Your task to perform on an android device: create a new album in the google photos Image 0: 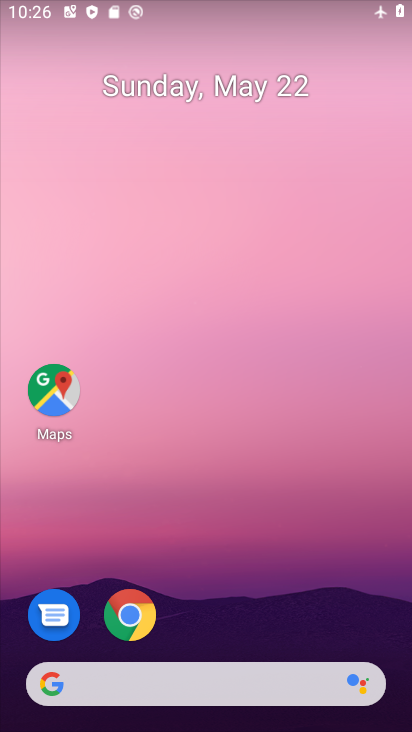
Step 0: drag from (268, 619) to (258, 114)
Your task to perform on an android device: create a new album in the google photos Image 1: 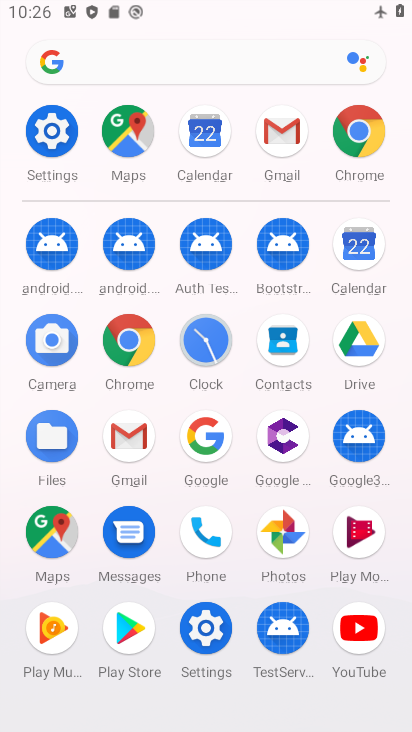
Step 1: click (289, 551)
Your task to perform on an android device: create a new album in the google photos Image 2: 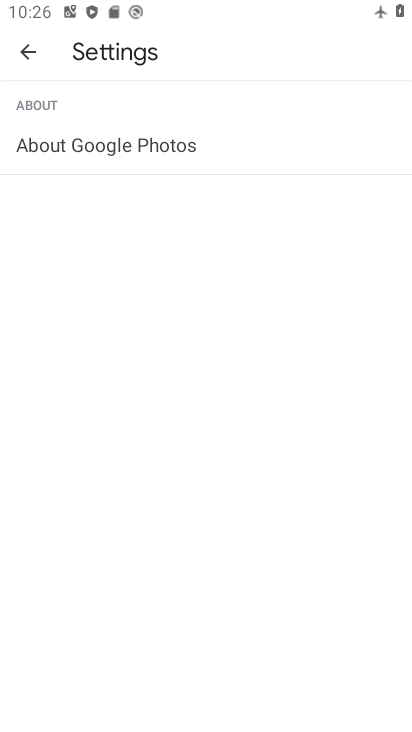
Step 2: click (27, 55)
Your task to perform on an android device: create a new album in the google photos Image 3: 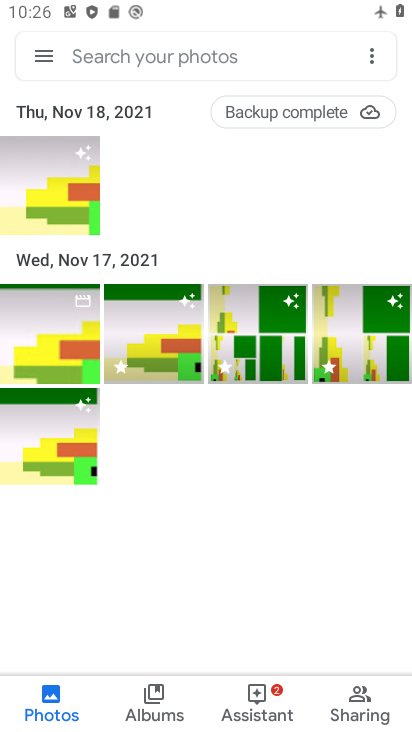
Step 3: click (165, 696)
Your task to perform on an android device: create a new album in the google photos Image 4: 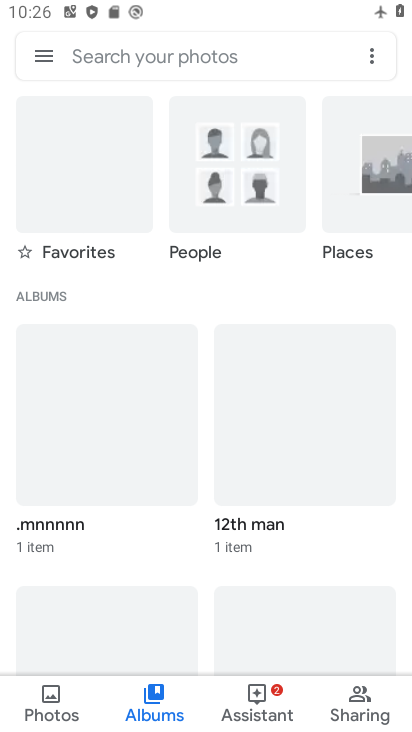
Step 4: click (374, 46)
Your task to perform on an android device: create a new album in the google photos Image 5: 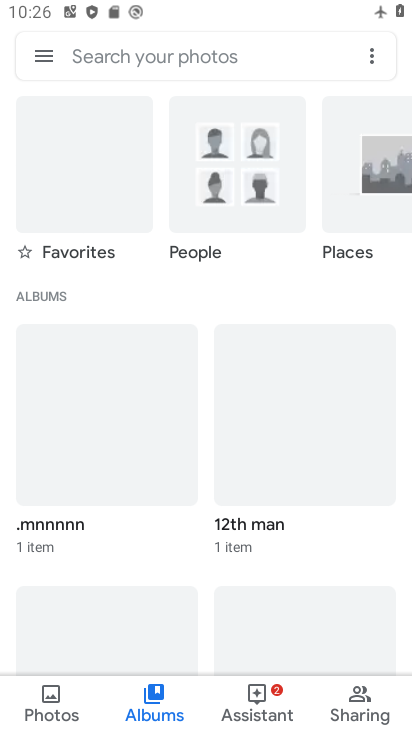
Step 5: click (373, 47)
Your task to perform on an android device: create a new album in the google photos Image 6: 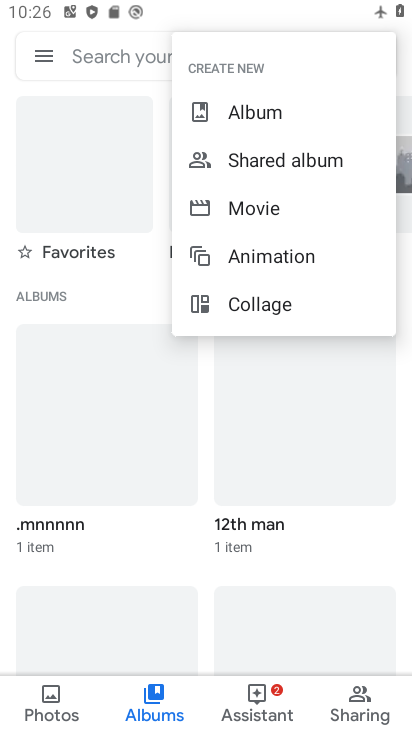
Step 6: click (259, 109)
Your task to perform on an android device: create a new album in the google photos Image 7: 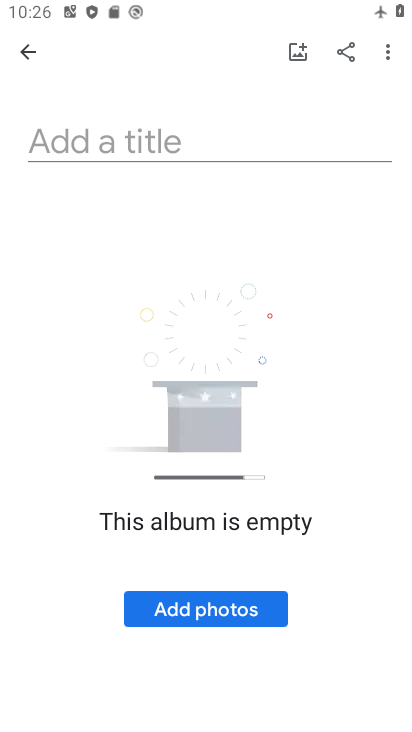
Step 7: click (163, 126)
Your task to perform on an android device: create a new album in the google photos Image 8: 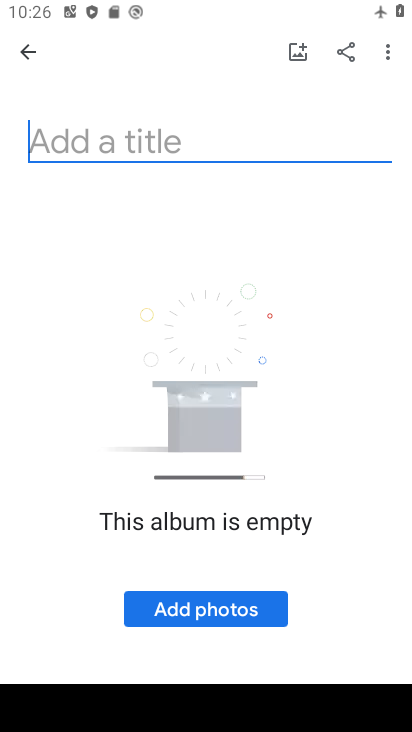
Step 8: type "rubg"
Your task to perform on an android device: create a new album in the google photos Image 9: 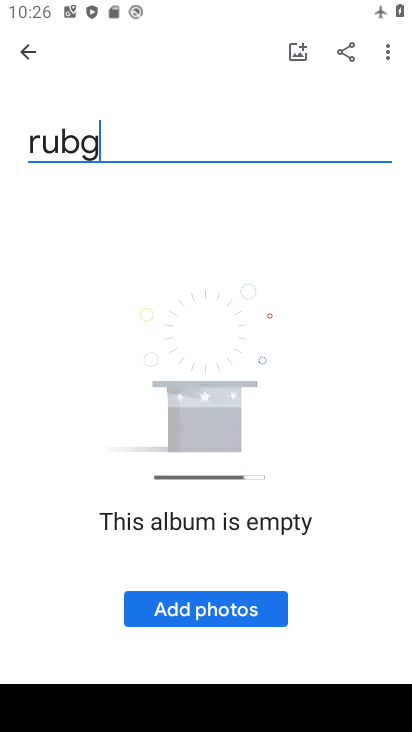
Step 9: click (198, 610)
Your task to perform on an android device: create a new album in the google photos Image 10: 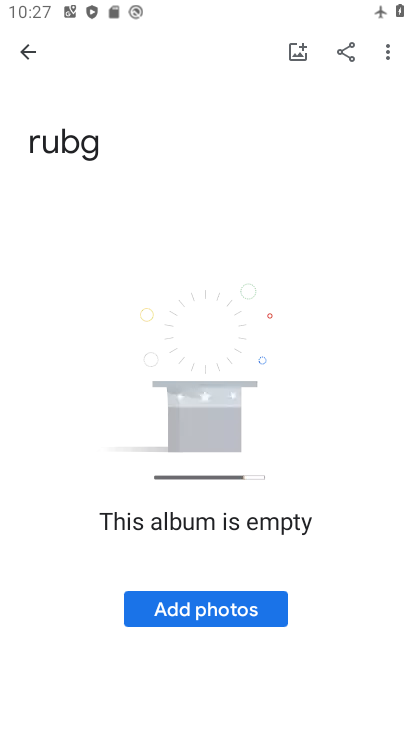
Step 10: click (189, 606)
Your task to perform on an android device: create a new album in the google photos Image 11: 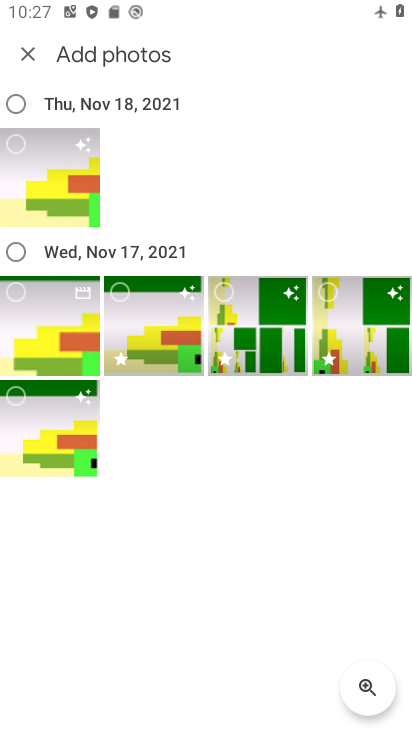
Step 11: click (61, 196)
Your task to perform on an android device: create a new album in the google photos Image 12: 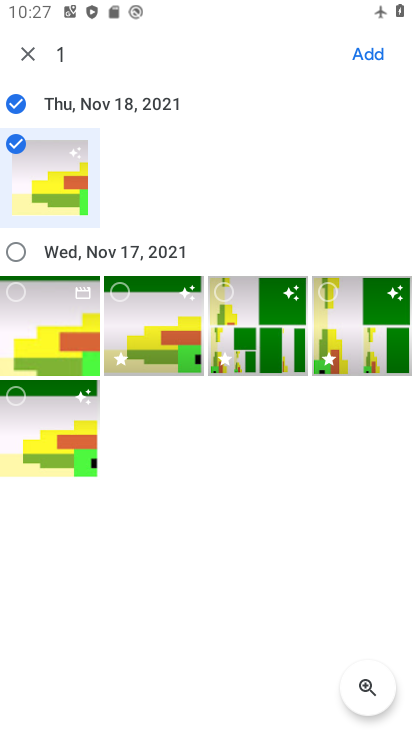
Step 12: click (369, 52)
Your task to perform on an android device: create a new album in the google photos Image 13: 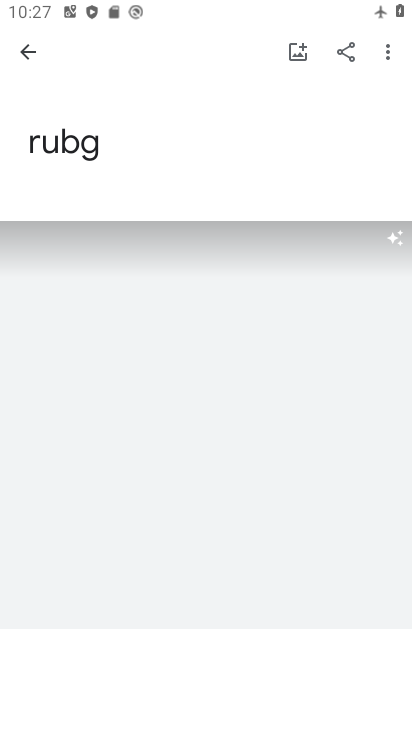
Step 13: task complete